Your task to perform on an android device: Open display settings Image 0: 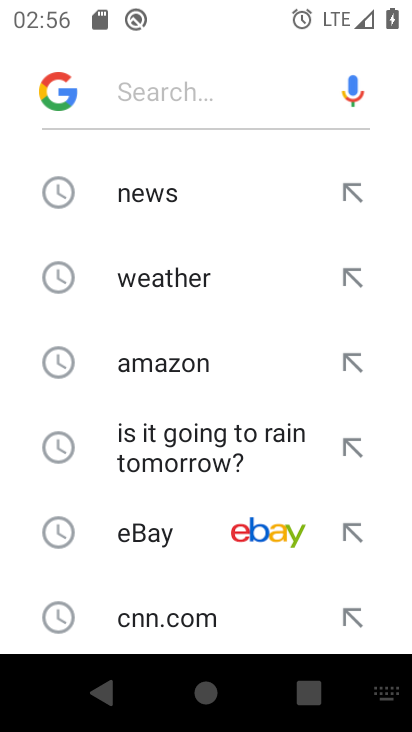
Step 0: task complete